Your task to perform on an android device: turn off notifications in google photos Image 0: 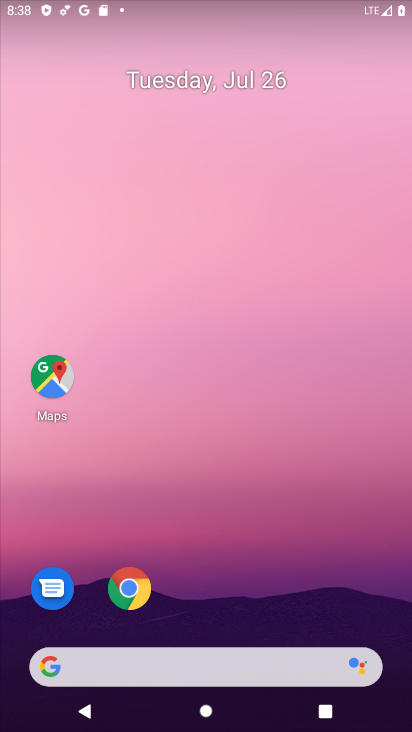
Step 0: drag from (218, 10) to (174, 208)
Your task to perform on an android device: turn off notifications in google photos Image 1: 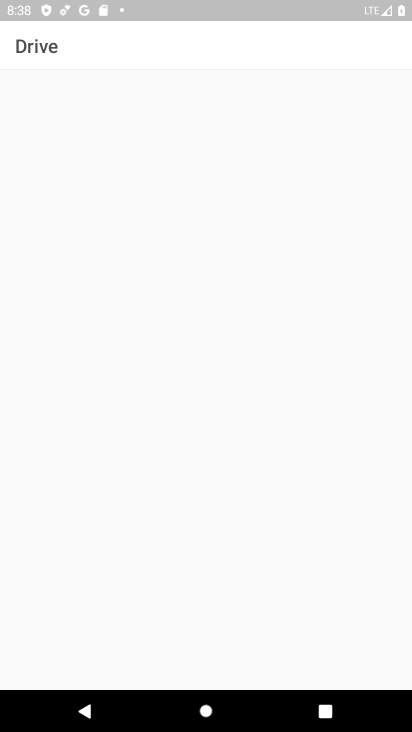
Step 1: press home button
Your task to perform on an android device: turn off notifications in google photos Image 2: 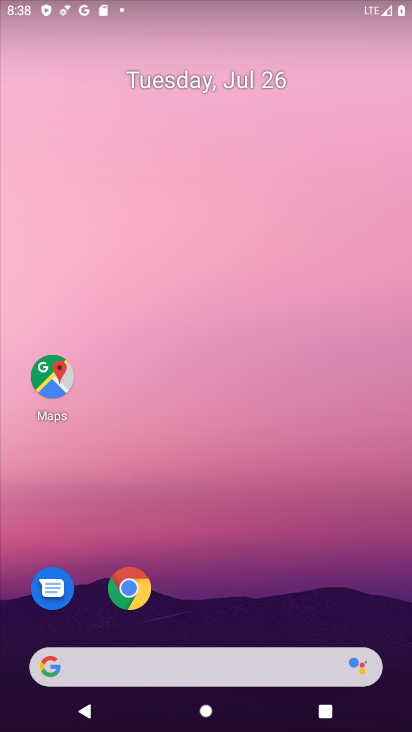
Step 2: drag from (214, 601) to (249, 14)
Your task to perform on an android device: turn off notifications in google photos Image 3: 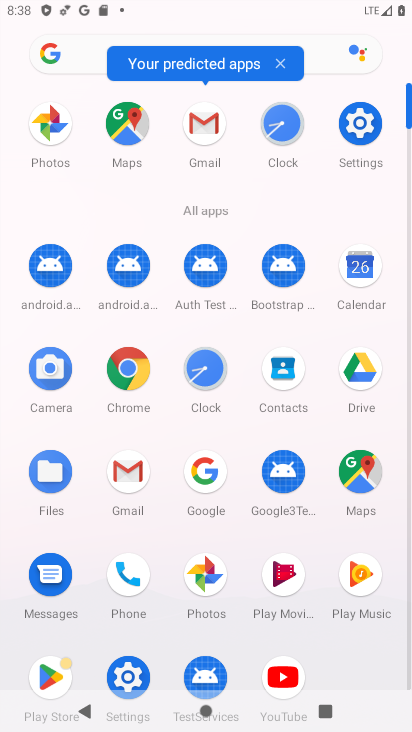
Step 3: click (358, 116)
Your task to perform on an android device: turn off notifications in google photos Image 4: 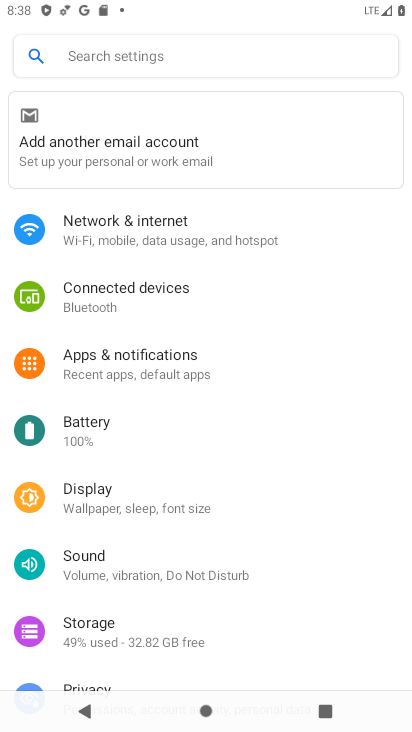
Step 4: click (237, 360)
Your task to perform on an android device: turn off notifications in google photos Image 5: 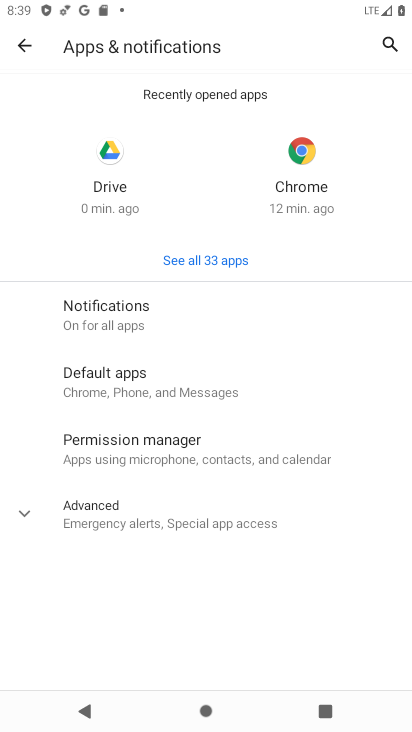
Step 5: click (167, 309)
Your task to perform on an android device: turn off notifications in google photos Image 6: 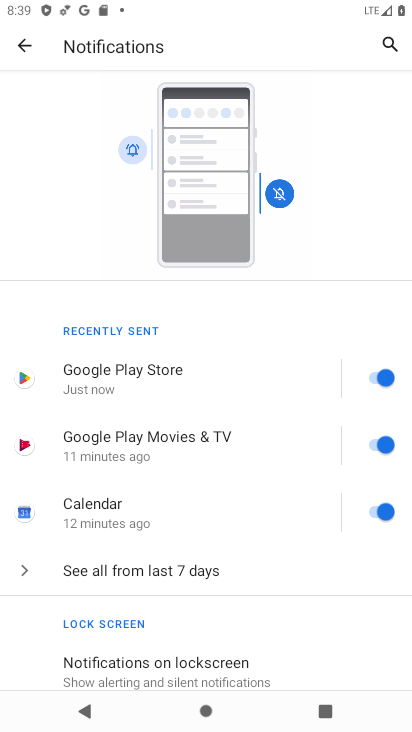
Step 6: drag from (221, 581) to (235, 119)
Your task to perform on an android device: turn off notifications in google photos Image 7: 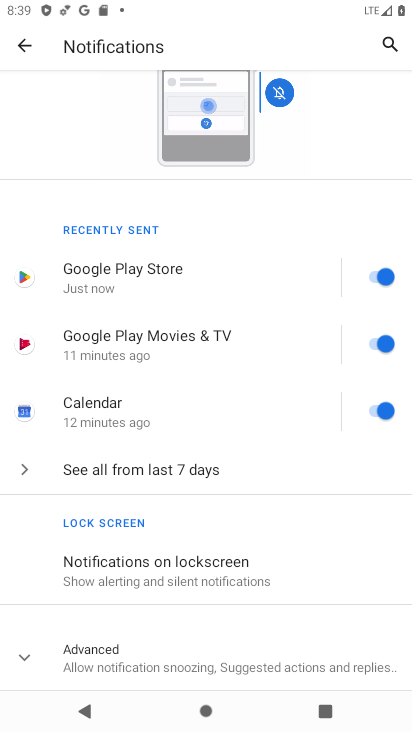
Step 7: click (24, 39)
Your task to perform on an android device: turn off notifications in google photos Image 8: 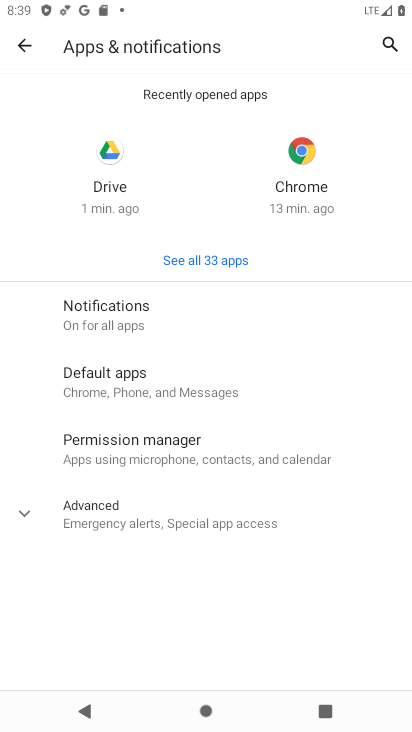
Step 8: task complete